Your task to perform on an android device: add a contact Image 0: 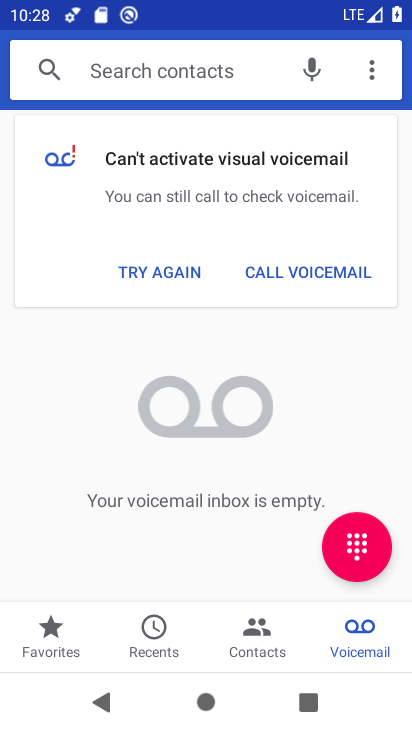
Step 0: press home button
Your task to perform on an android device: add a contact Image 1: 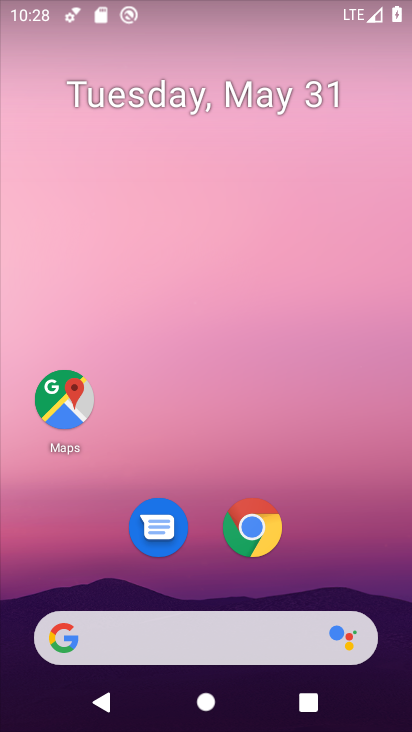
Step 1: drag from (316, 593) to (303, 3)
Your task to perform on an android device: add a contact Image 2: 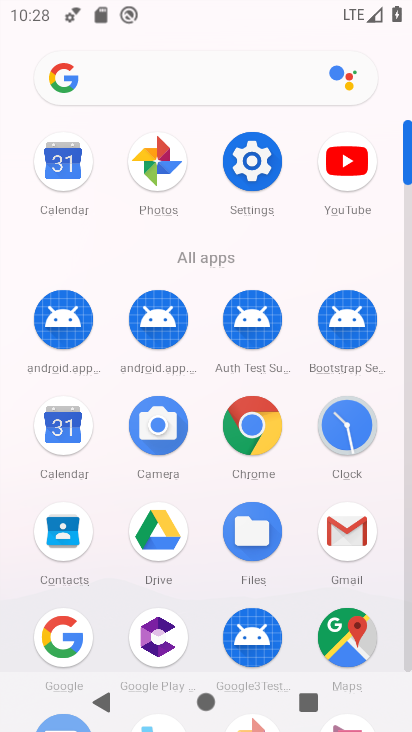
Step 2: click (66, 540)
Your task to perform on an android device: add a contact Image 3: 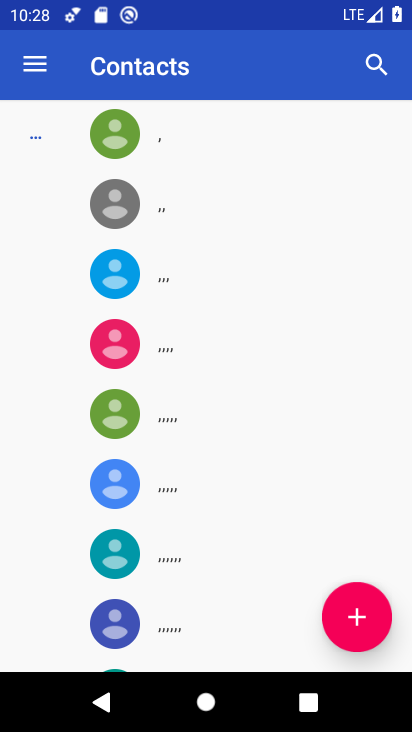
Step 3: click (344, 626)
Your task to perform on an android device: add a contact Image 4: 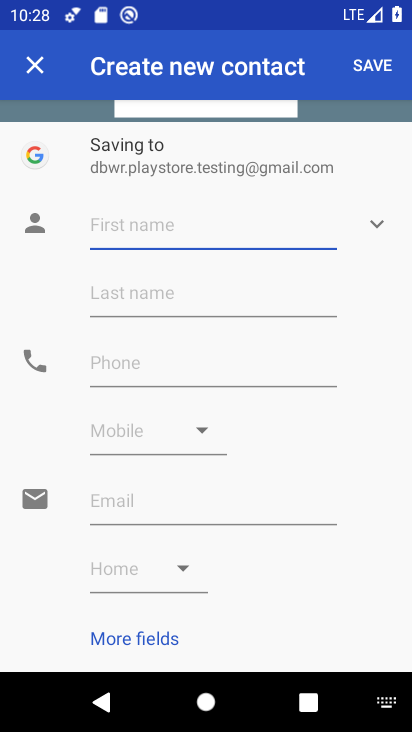
Step 4: type "suresh"
Your task to perform on an android device: add a contact Image 5: 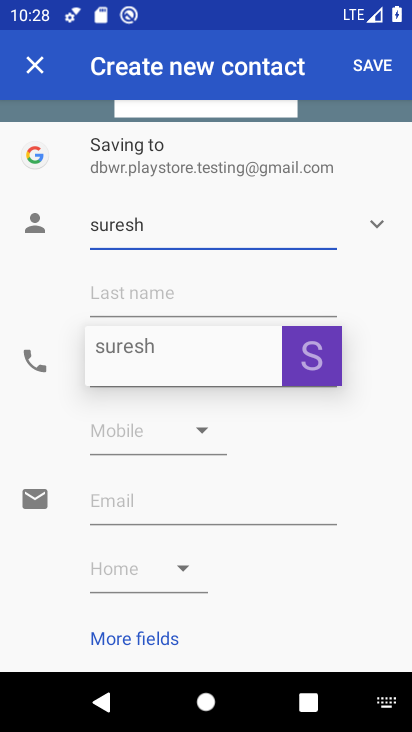
Step 5: click (409, 384)
Your task to perform on an android device: add a contact Image 6: 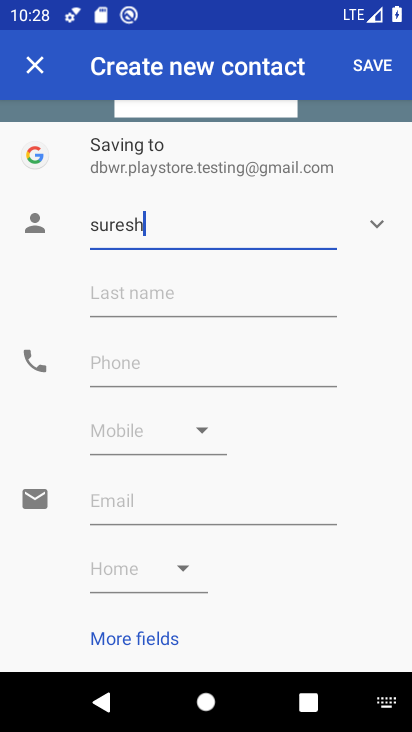
Step 6: click (181, 378)
Your task to perform on an android device: add a contact Image 7: 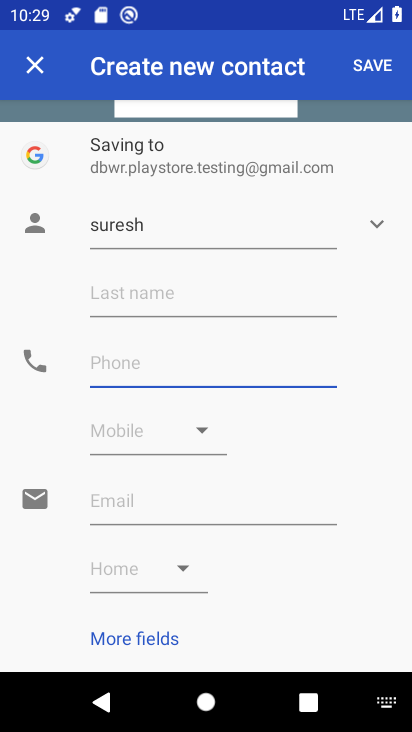
Step 7: type "8765443355"
Your task to perform on an android device: add a contact Image 8: 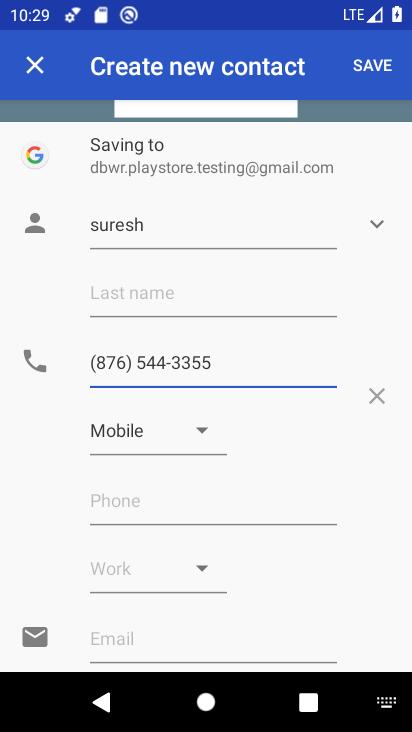
Step 8: click (364, 63)
Your task to perform on an android device: add a contact Image 9: 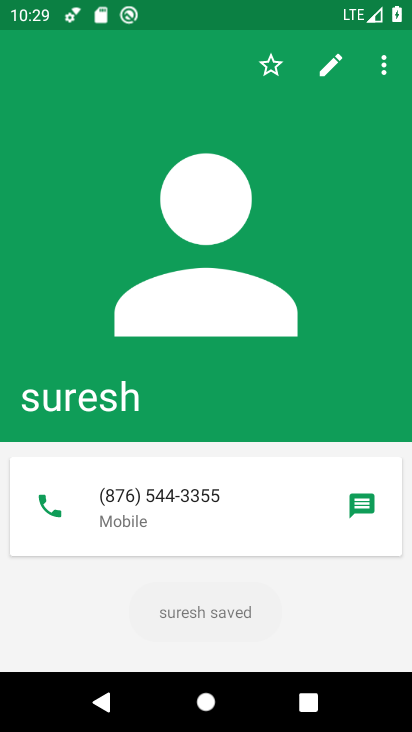
Step 9: task complete